Your task to perform on an android device: clear history in the chrome app Image 0: 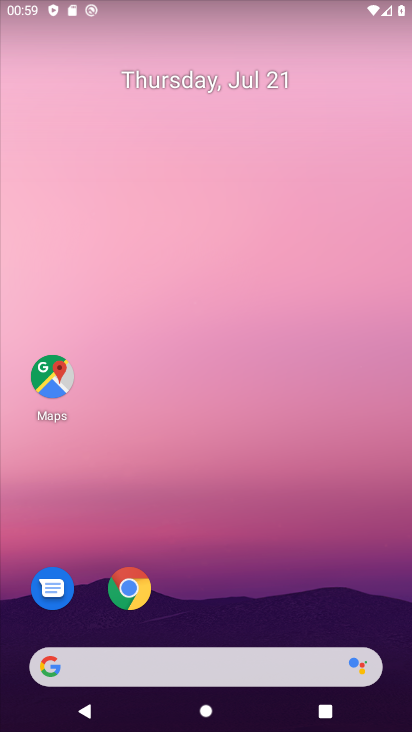
Step 0: click (128, 583)
Your task to perform on an android device: clear history in the chrome app Image 1: 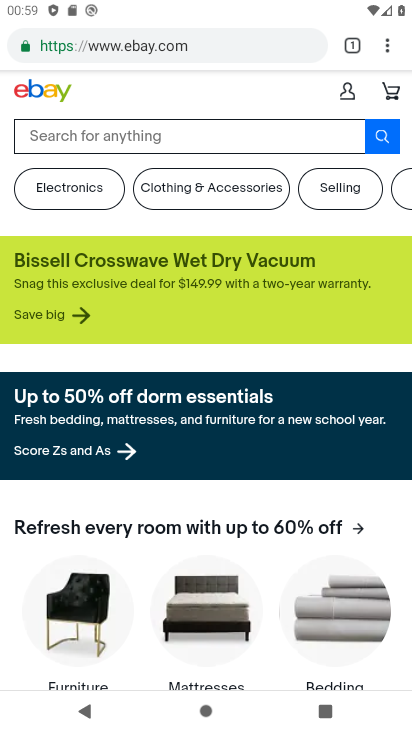
Step 1: click (390, 52)
Your task to perform on an android device: clear history in the chrome app Image 2: 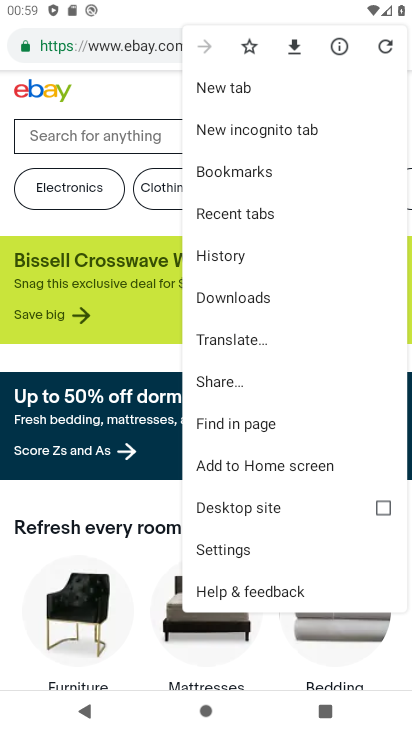
Step 2: click (231, 257)
Your task to perform on an android device: clear history in the chrome app Image 3: 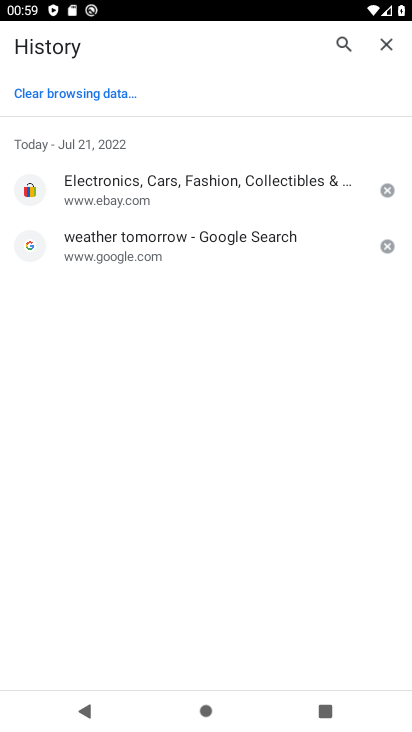
Step 3: click (78, 99)
Your task to perform on an android device: clear history in the chrome app Image 4: 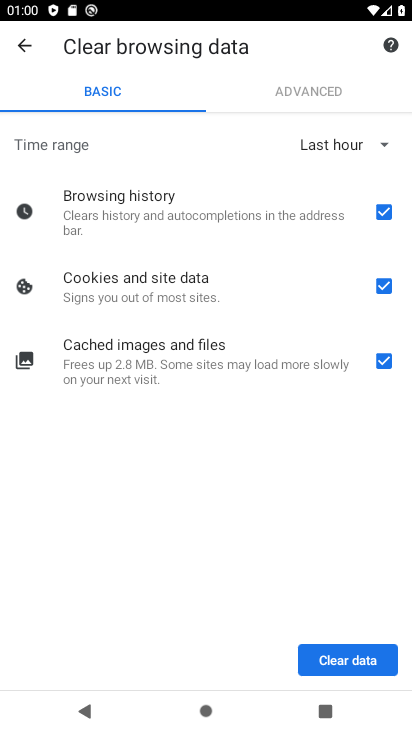
Step 4: click (366, 132)
Your task to perform on an android device: clear history in the chrome app Image 5: 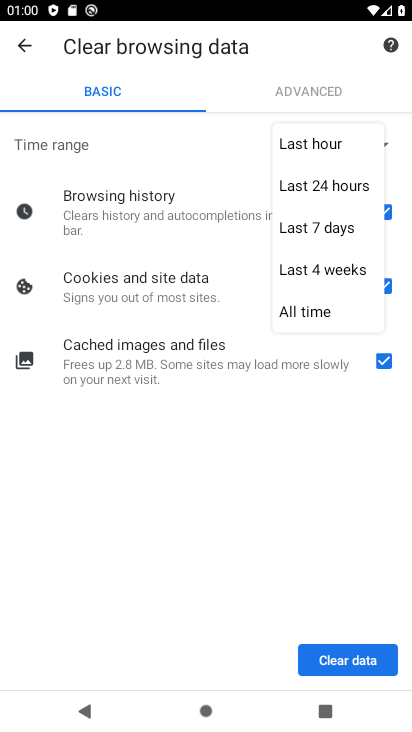
Step 5: click (319, 186)
Your task to perform on an android device: clear history in the chrome app Image 6: 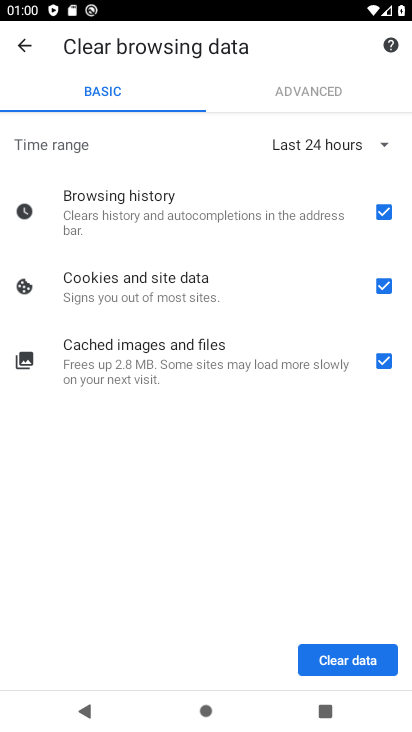
Step 6: click (325, 139)
Your task to perform on an android device: clear history in the chrome app Image 7: 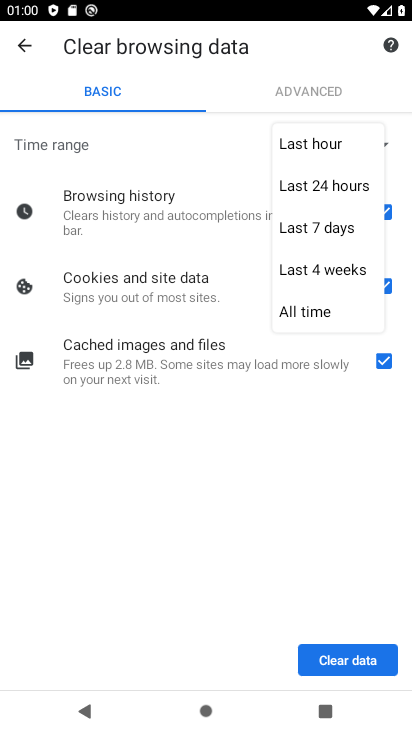
Step 7: click (353, 317)
Your task to perform on an android device: clear history in the chrome app Image 8: 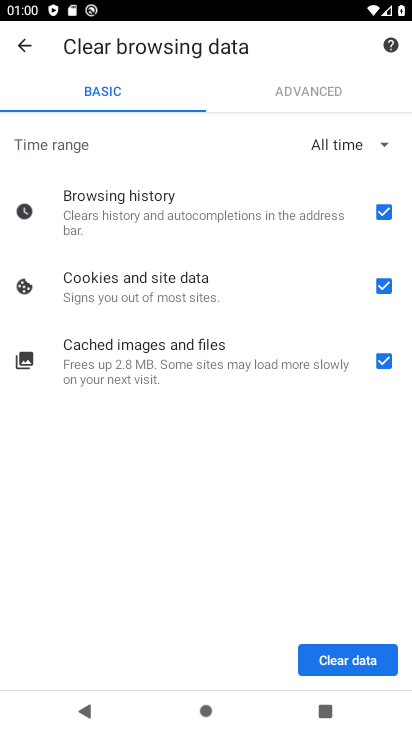
Step 8: click (335, 659)
Your task to perform on an android device: clear history in the chrome app Image 9: 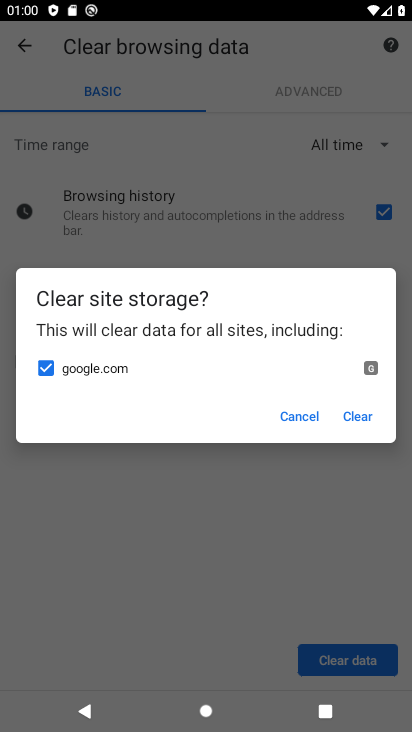
Step 9: click (357, 420)
Your task to perform on an android device: clear history in the chrome app Image 10: 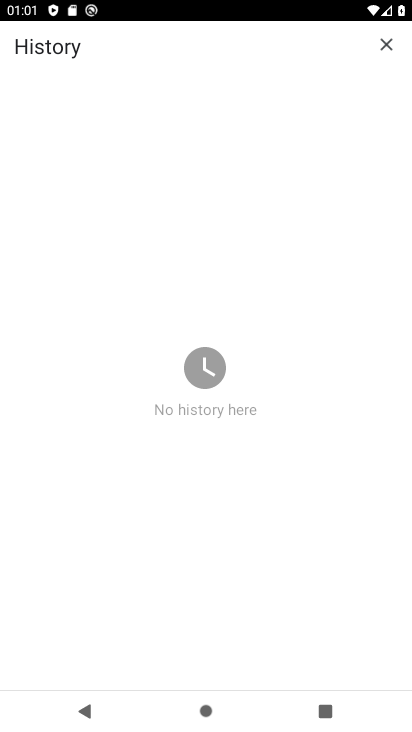
Step 10: task complete